Your task to perform on an android device: See recent photos Image 0: 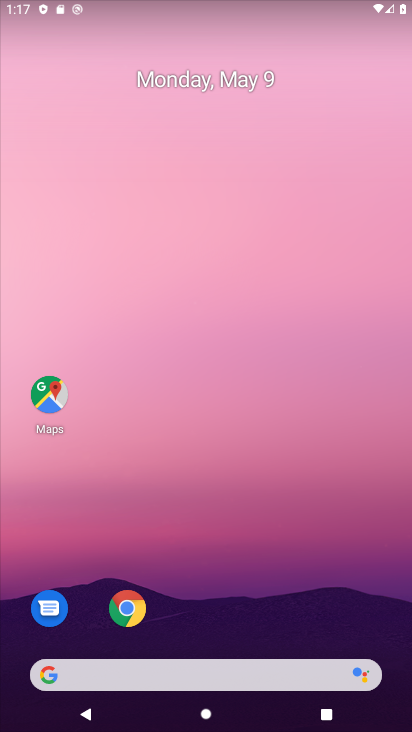
Step 0: drag from (210, 629) to (203, 54)
Your task to perform on an android device: See recent photos Image 1: 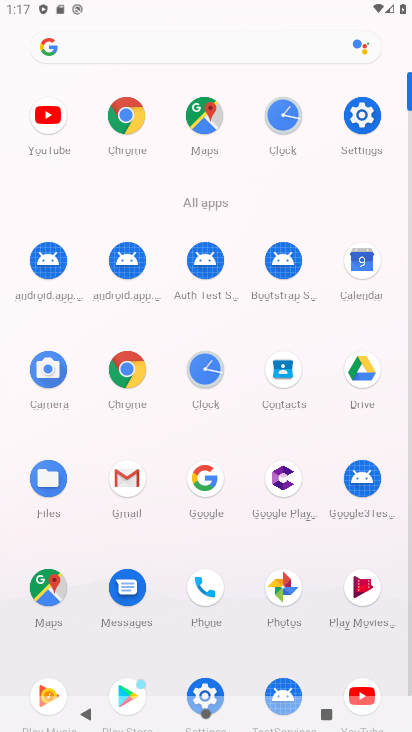
Step 1: click (284, 582)
Your task to perform on an android device: See recent photos Image 2: 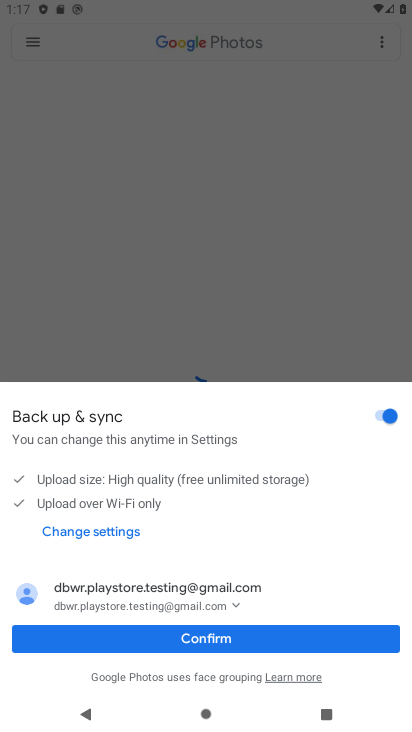
Step 2: click (239, 627)
Your task to perform on an android device: See recent photos Image 3: 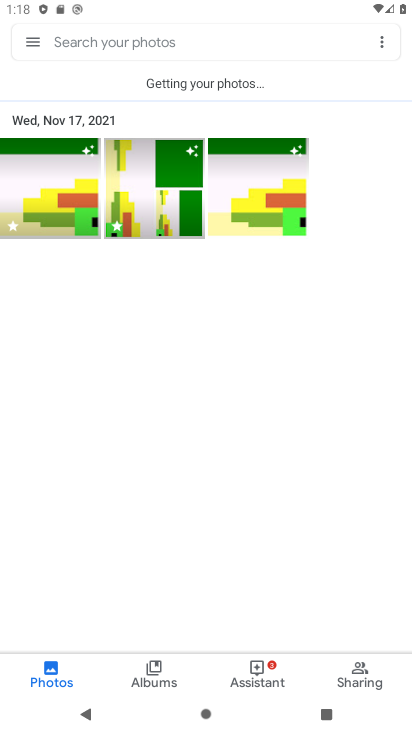
Step 3: task complete